Your task to perform on an android device: Open settings on Google Maps Image 0: 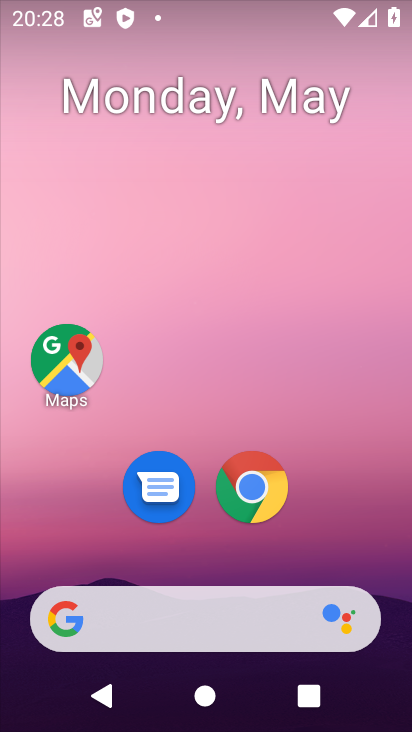
Step 0: drag from (374, 476) to (380, 160)
Your task to perform on an android device: Open settings on Google Maps Image 1: 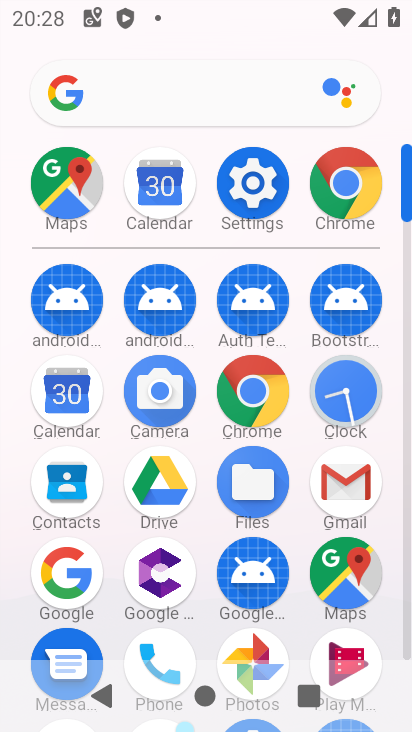
Step 1: click (358, 570)
Your task to perform on an android device: Open settings on Google Maps Image 2: 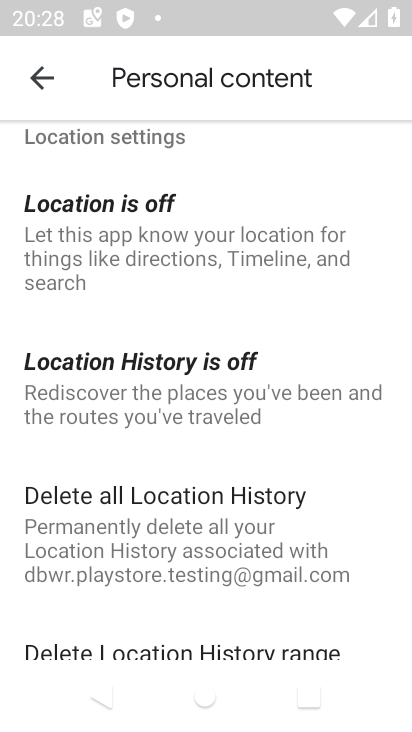
Step 2: click (52, 84)
Your task to perform on an android device: Open settings on Google Maps Image 3: 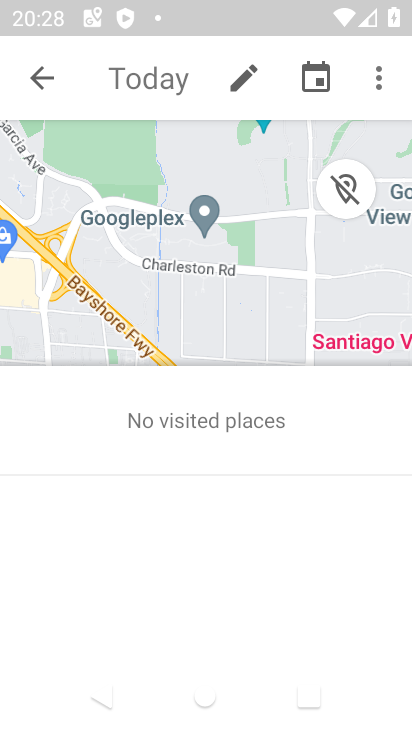
Step 3: click (52, 84)
Your task to perform on an android device: Open settings on Google Maps Image 4: 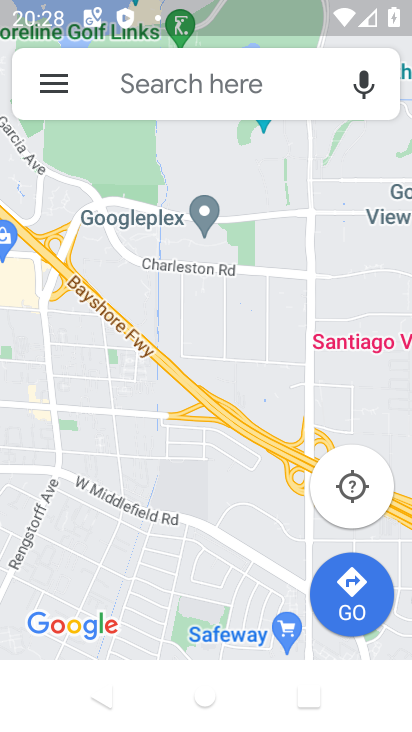
Step 4: click (58, 88)
Your task to perform on an android device: Open settings on Google Maps Image 5: 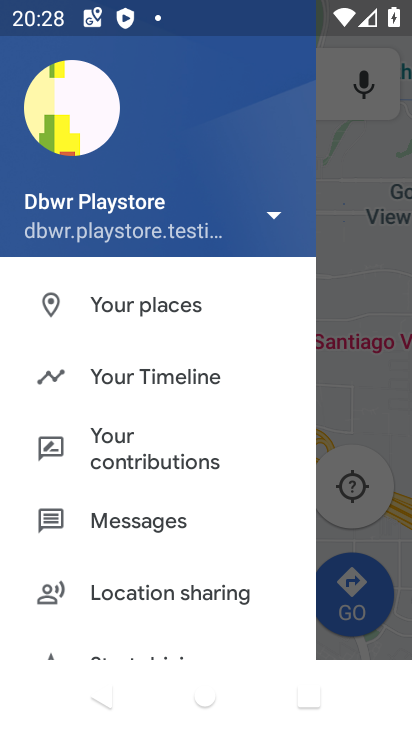
Step 5: drag from (255, 485) to (265, 382)
Your task to perform on an android device: Open settings on Google Maps Image 6: 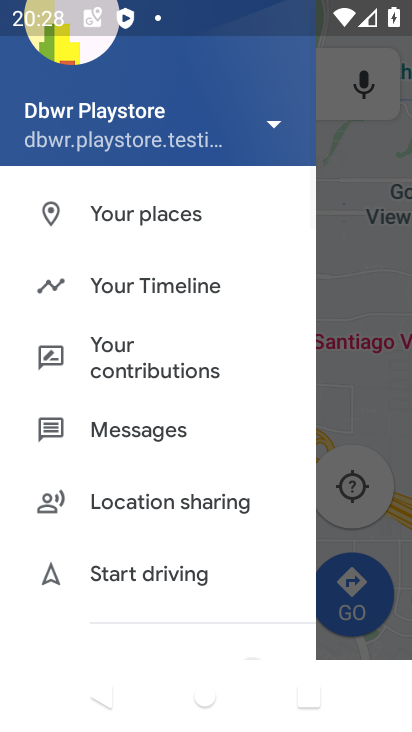
Step 6: drag from (266, 556) to (263, 417)
Your task to perform on an android device: Open settings on Google Maps Image 7: 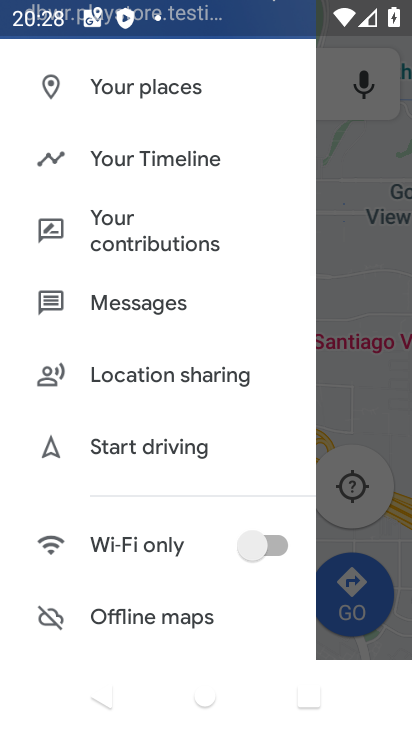
Step 7: drag from (222, 574) to (241, 416)
Your task to perform on an android device: Open settings on Google Maps Image 8: 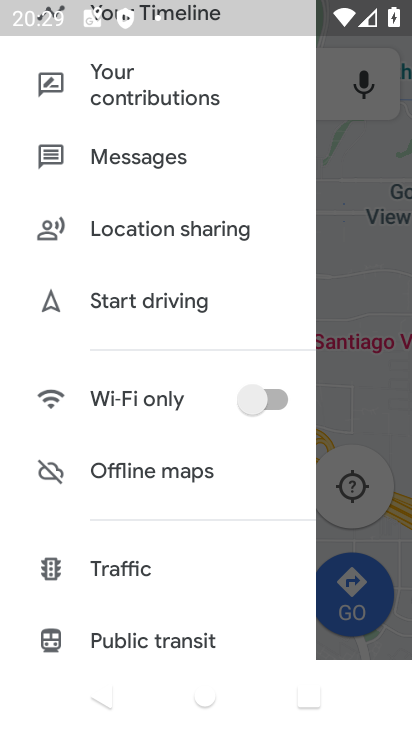
Step 8: drag from (255, 583) to (271, 456)
Your task to perform on an android device: Open settings on Google Maps Image 9: 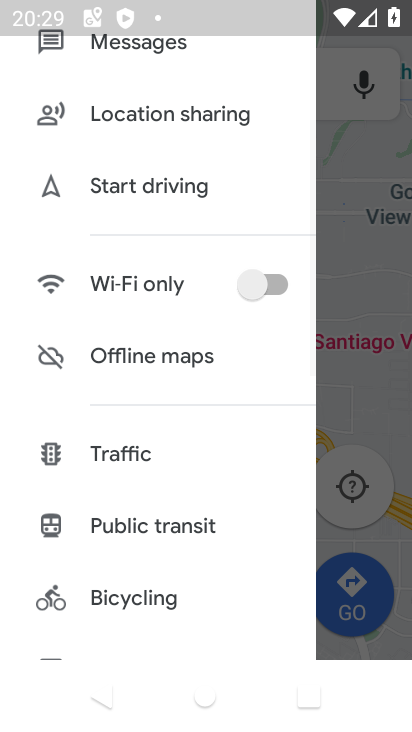
Step 9: drag from (250, 591) to (268, 474)
Your task to perform on an android device: Open settings on Google Maps Image 10: 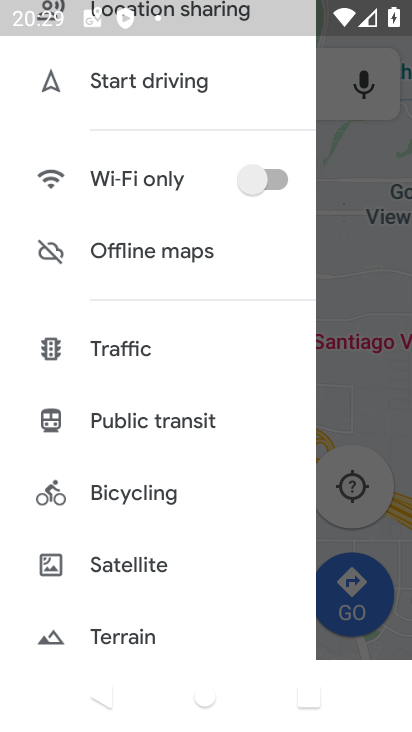
Step 10: drag from (272, 543) to (287, 399)
Your task to perform on an android device: Open settings on Google Maps Image 11: 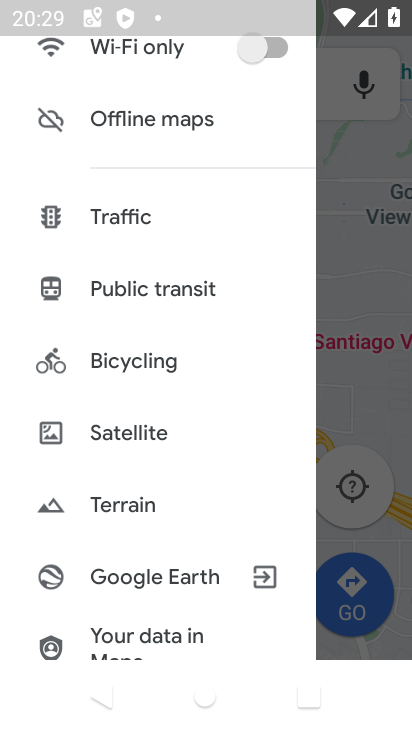
Step 11: drag from (243, 592) to (260, 441)
Your task to perform on an android device: Open settings on Google Maps Image 12: 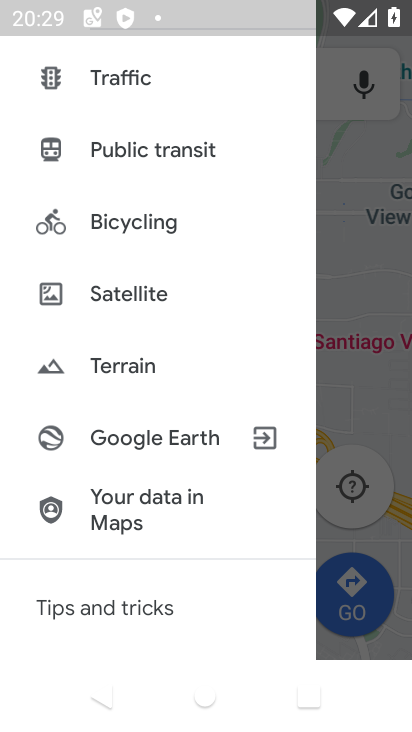
Step 12: drag from (246, 588) to (260, 464)
Your task to perform on an android device: Open settings on Google Maps Image 13: 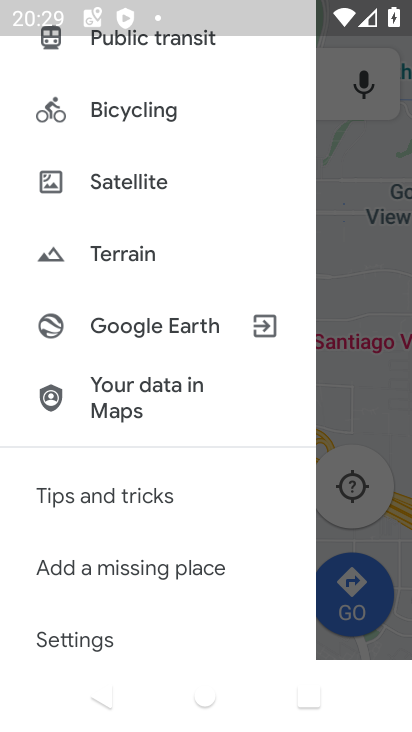
Step 13: drag from (268, 623) to (268, 481)
Your task to perform on an android device: Open settings on Google Maps Image 14: 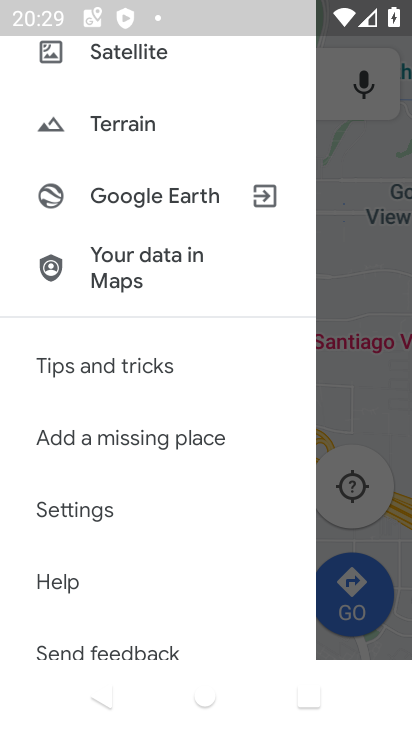
Step 14: click (133, 517)
Your task to perform on an android device: Open settings on Google Maps Image 15: 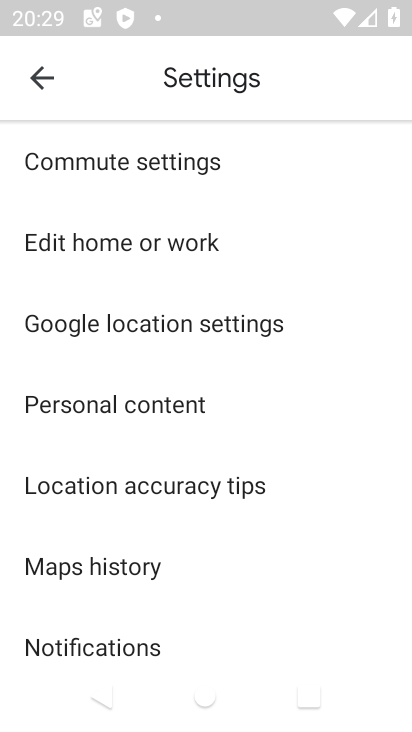
Step 15: task complete